Your task to perform on an android device: Open calendar and show me the second week of next month Image 0: 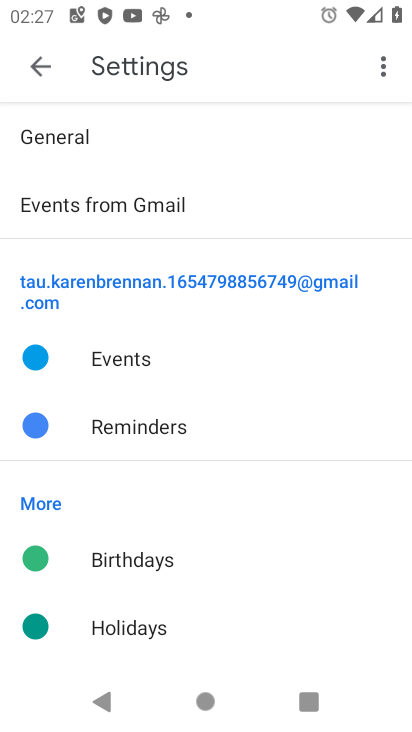
Step 0: press home button
Your task to perform on an android device: Open calendar and show me the second week of next month Image 1: 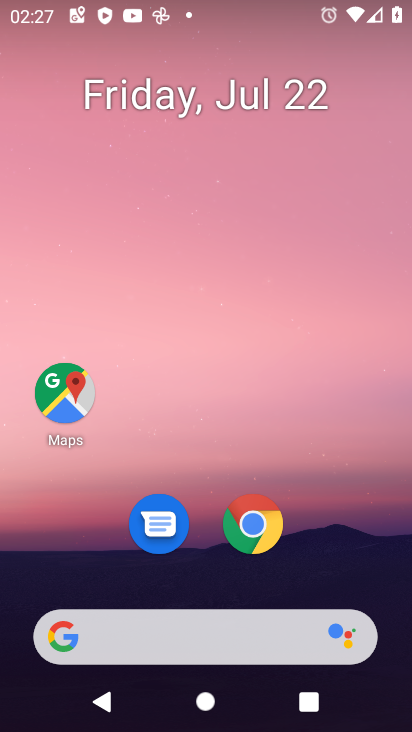
Step 1: drag from (240, 642) to (238, 66)
Your task to perform on an android device: Open calendar and show me the second week of next month Image 2: 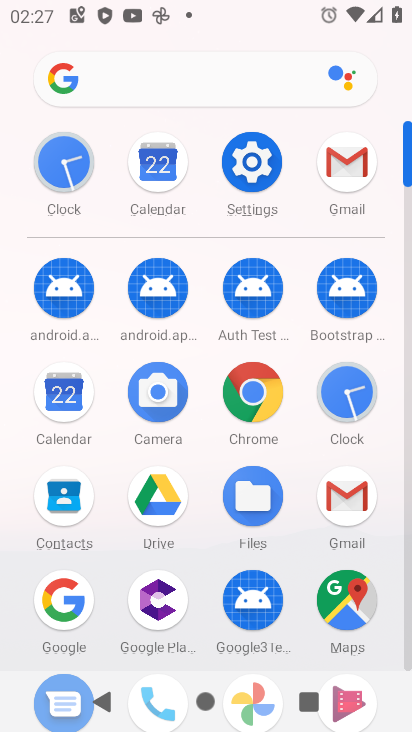
Step 2: click (71, 403)
Your task to perform on an android device: Open calendar and show me the second week of next month Image 3: 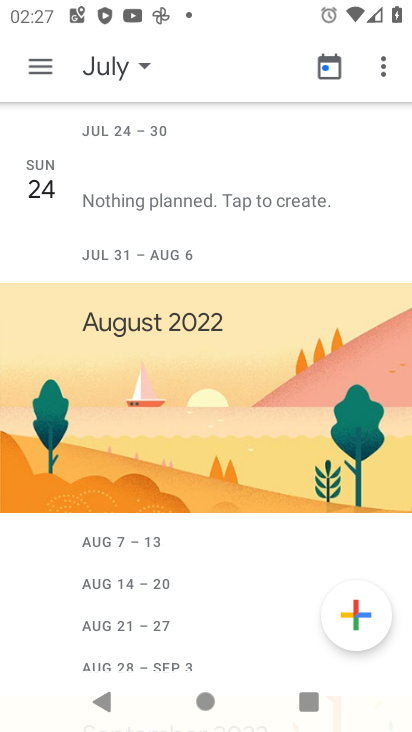
Step 3: click (114, 63)
Your task to perform on an android device: Open calendar and show me the second week of next month Image 4: 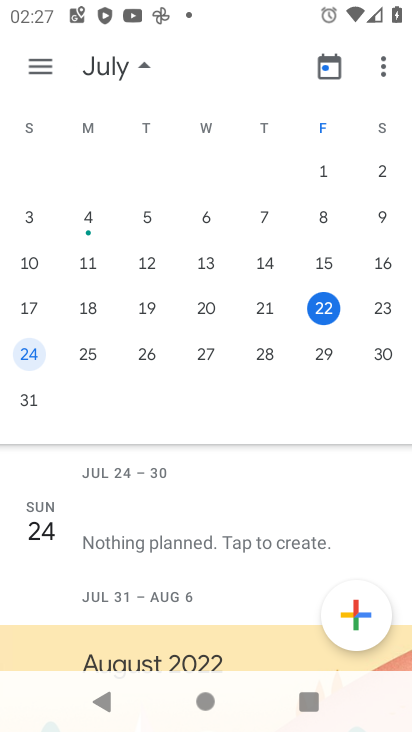
Step 4: drag from (336, 243) to (2, 255)
Your task to perform on an android device: Open calendar and show me the second week of next month Image 5: 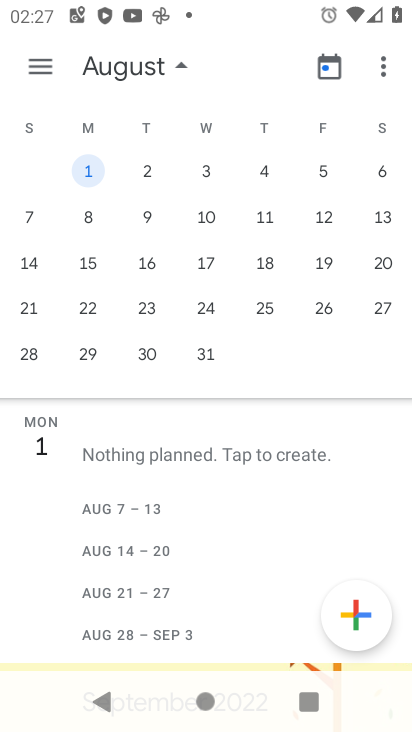
Step 5: click (31, 219)
Your task to perform on an android device: Open calendar and show me the second week of next month Image 6: 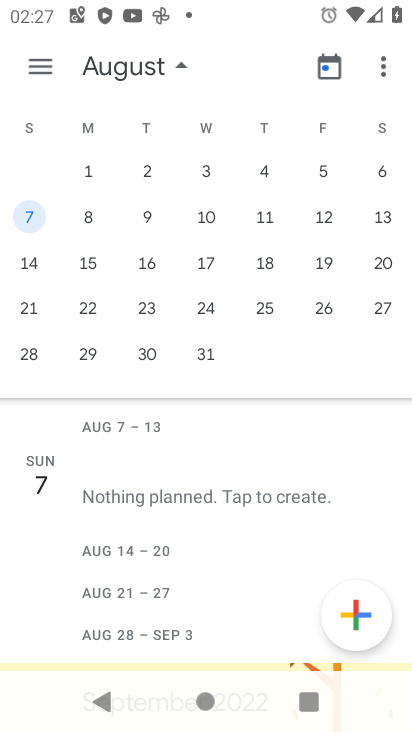
Step 6: click (46, 61)
Your task to perform on an android device: Open calendar and show me the second week of next month Image 7: 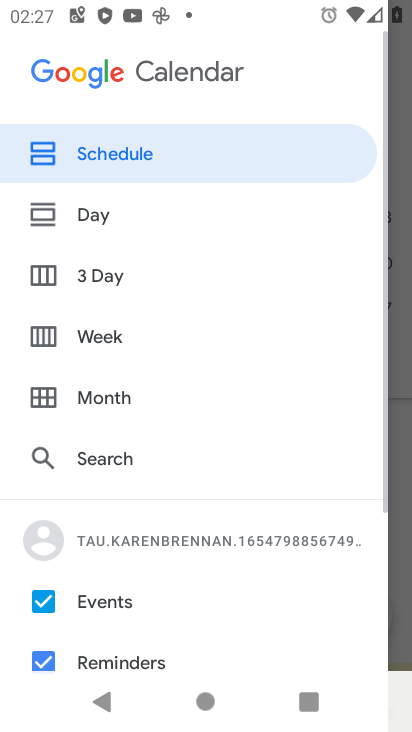
Step 7: click (106, 334)
Your task to perform on an android device: Open calendar and show me the second week of next month Image 8: 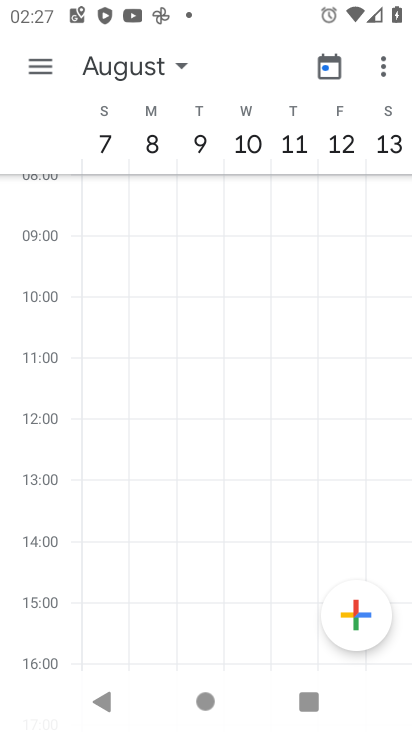
Step 8: task complete